Your task to perform on an android device: Open accessibility settings Image 0: 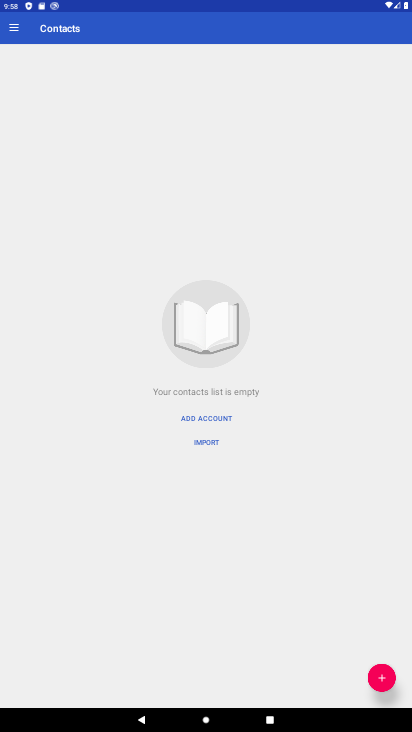
Step 0: press back button
Your task to perform on an android device: Open accessibility settings Image 1: 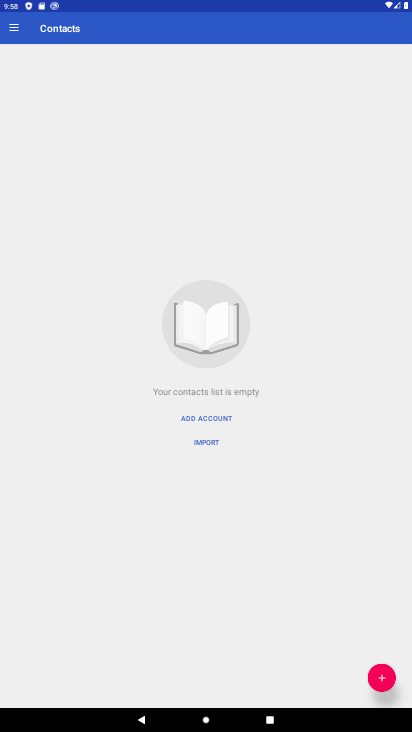
Step 1: press back button
Your task to perform on an android device: Open accessibility settings Image 2: 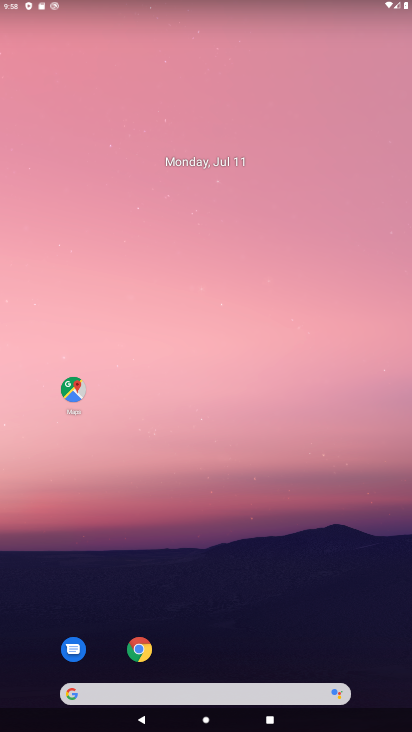
Step 2: drag from (260, 515) to (182, 46)
Your task to perform on an android device: Open accessibility settings Image 3: 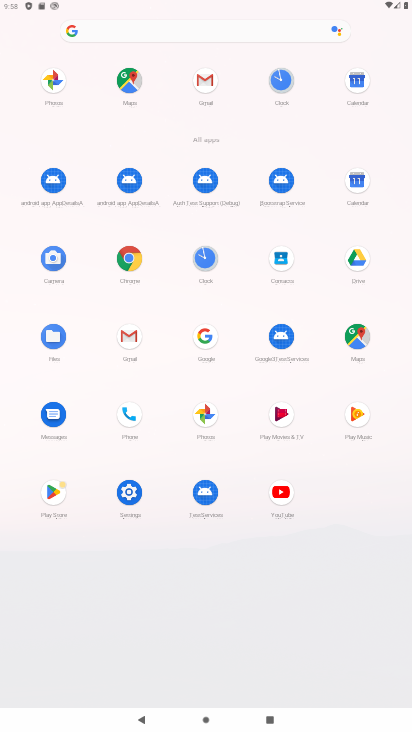
Step 3: click (120, 491)
Your task to perform on an android device: Open accessibility settings Image 4: 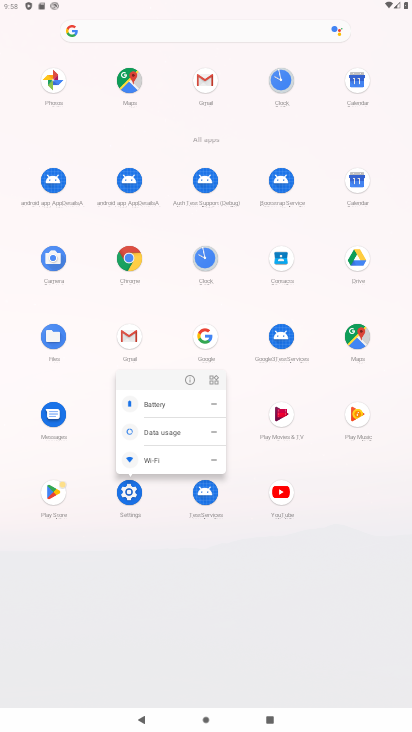
Step 4: click (123, 490)
Your task to perform on an android device: Open accessibility settings Image 5: 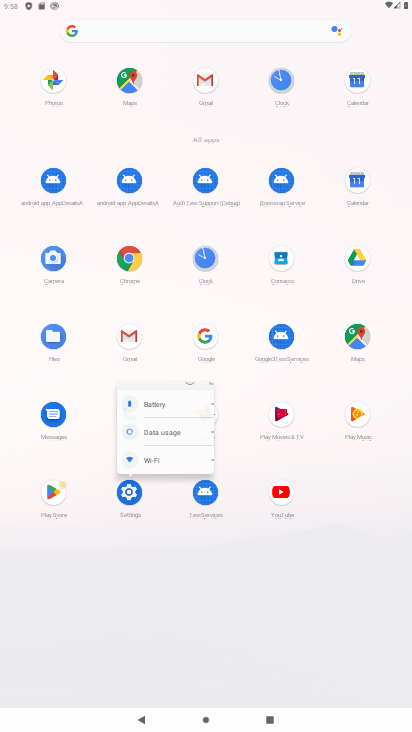
Step 5: click (105, 488)
Your task to perform on an android device: Open accessibility settings Image 6: 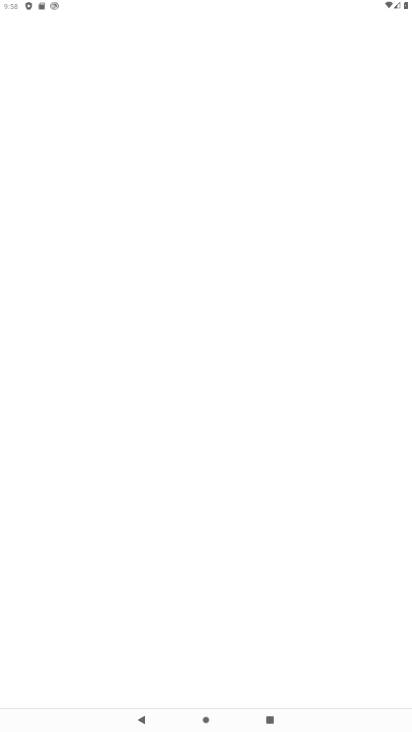
Step 6: click (128, 485)
Your task to perform on an android device: Open accessibility settings Image 7: 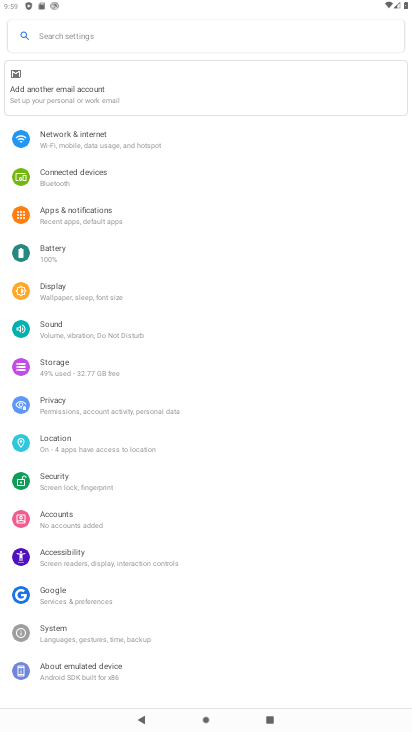
Step 7: drag from (100, 587) to (114, 122)
Your task to perform on an android device: Open accessibility settings Image 8: 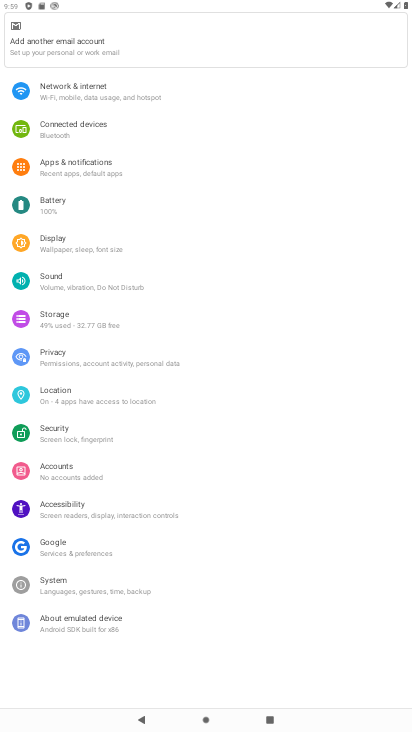
Step 8: click (69, 503)
Your task to perform on an android device: Open accessibility settings Image 9: 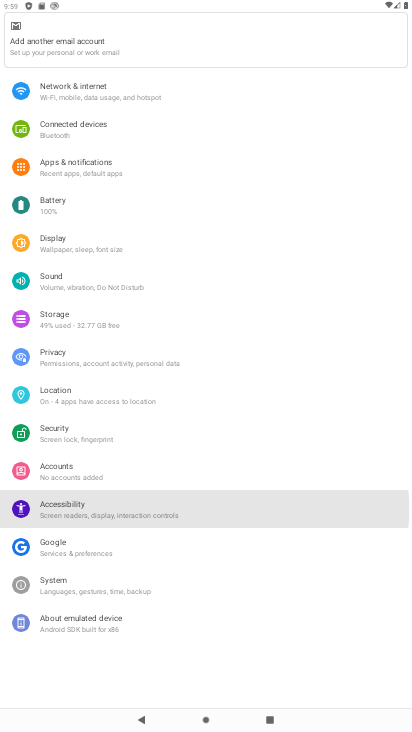
Step 9: click (69, 503)
Your task to perform on an android device: Open accessibility settings Image 10: 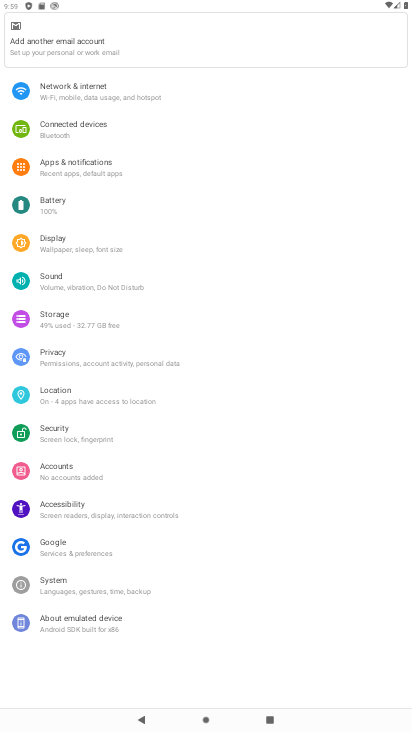
Step 10: click (69, 503)
Your task to perform on an android device: Open accessibility settings Image 11: 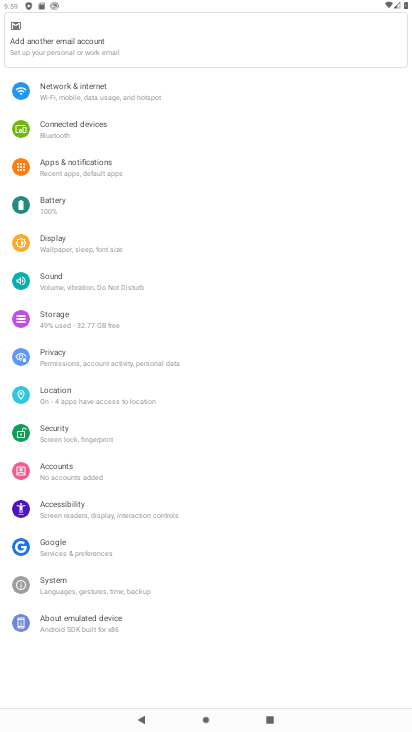
Step 11: click (69, 503)
Your task to perform on an android device: Open accessibility settings Image 12: 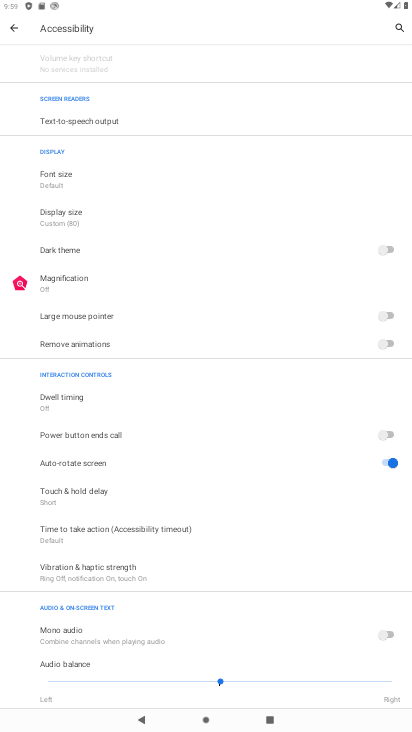
Step 12: task complete